Your task to perform on an android device: Open sound settings Image 0: 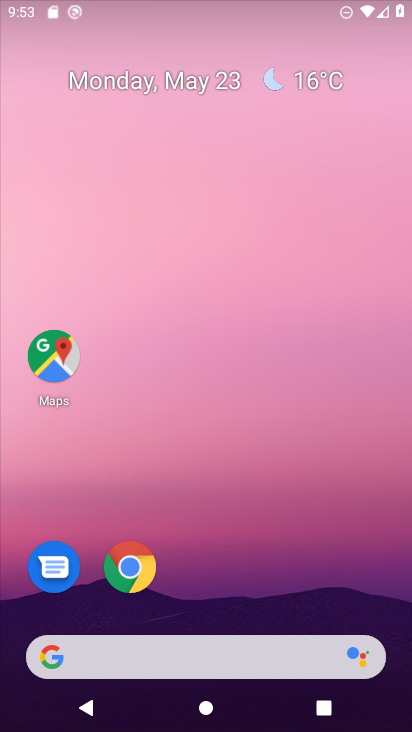
Step 0: drag from (181, 640) to (183, 37)
Your task to perform on an android device: Open sound settings Image 1: 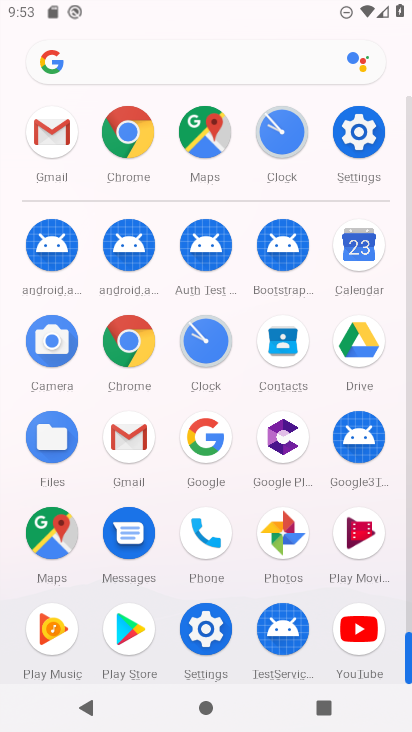
Step 1: click (208, 632)
Your task to perform on an android device: Open sound settings Image 2: 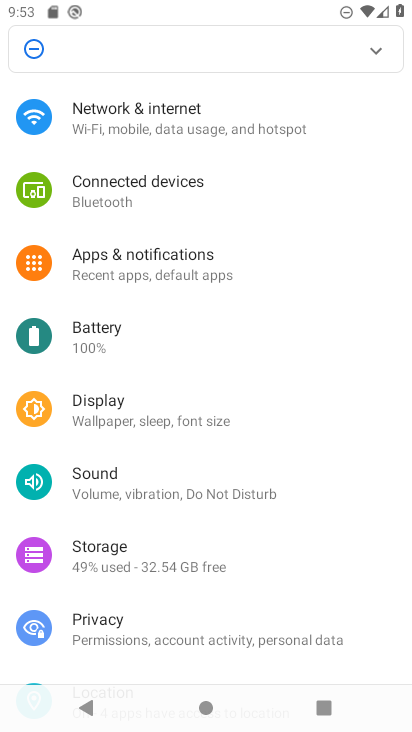
Step 2: click (116, 482)
Your task to perform on an android device: Open sound settings Image 3: 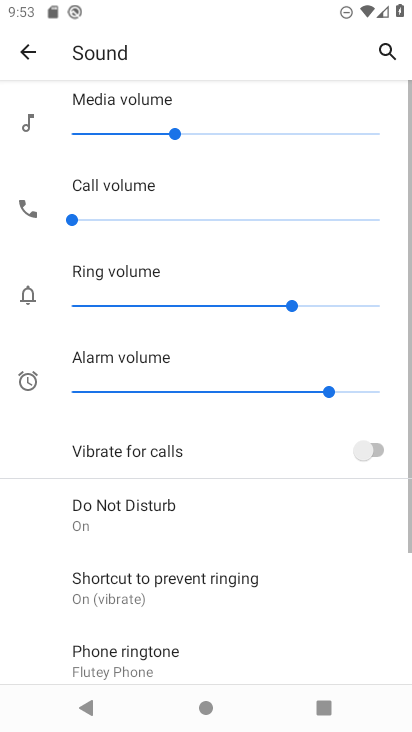
Step 3: task complete